Your task to perform on an android device: Open network settings Image 0: 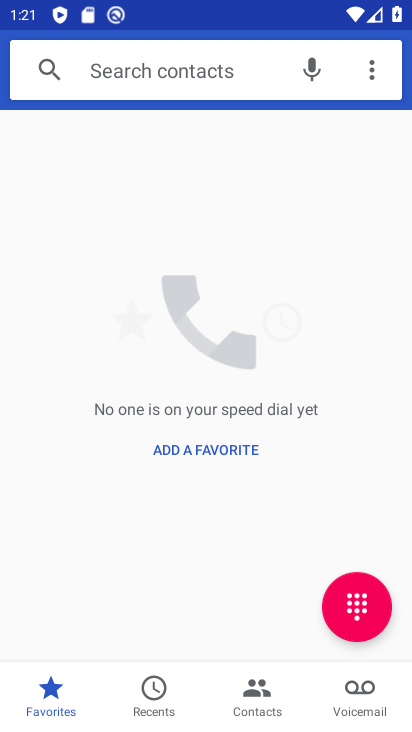
Step 0: press home button
Your task to perform on an android device: Open network settings Image 1: 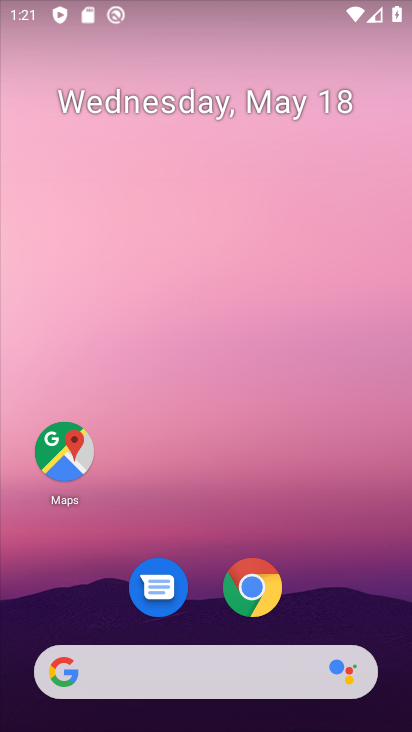
Step 1: drag from (365, 516) to (349, 227)
Your task to perform on an android device: Open network settings Image 2: 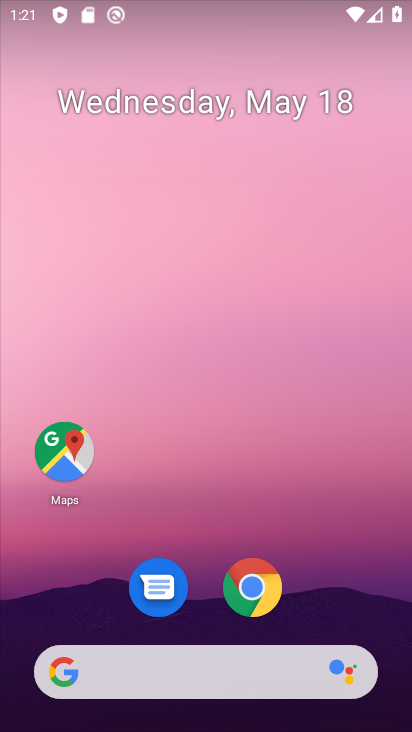
Step 2: drag from (393, 600) to (390, 299)
Your task to perform on an android device: Open network settings Image 3: 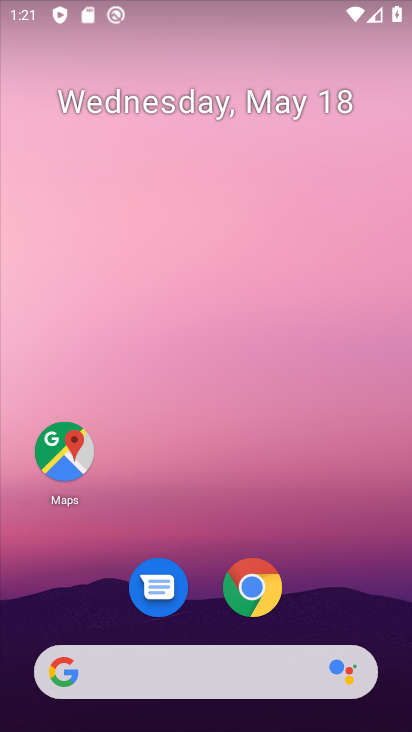
Step 3: drag from (396, 681) to (405, 300)
Your task to perform on an android device: Open network settings Image 4: 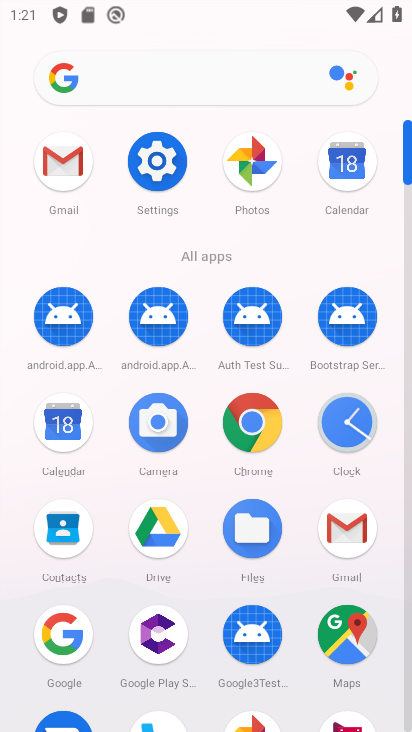
Step 4: click (164, 162)
Your task to perform on an android device: Open network settings Image 5: 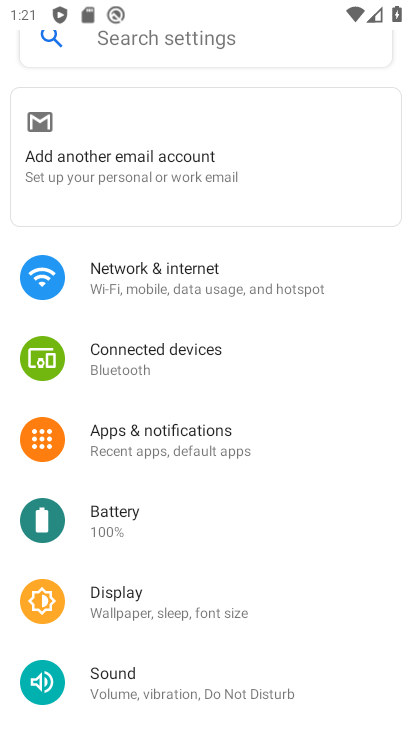
Step 5: click (134, 282)
Your task to perform on an android device: Open network settings Image 6: 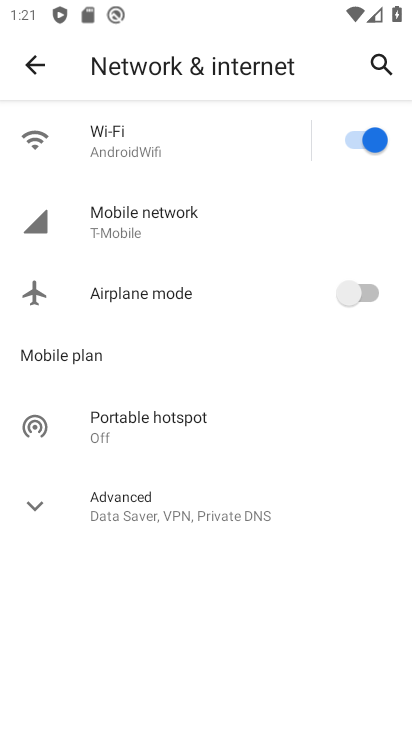
Step 6: click (139, 140)
Your task to perform on an android device: Open network settings Image 7: 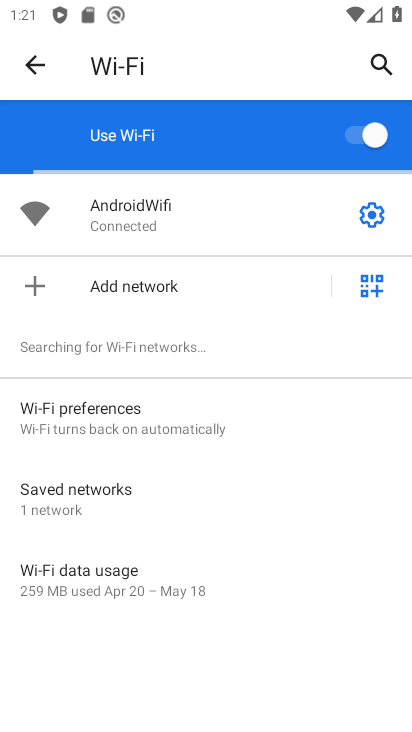
Step 7: click (29, 65)
Your task to perform on an android device: Open network settings Image 8: 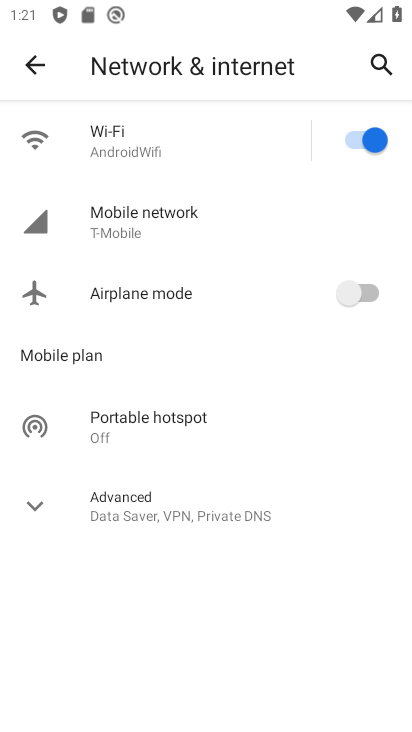
Step 8: click (121, 238)
Your task to perform on an android device: Open network settings Image 9: 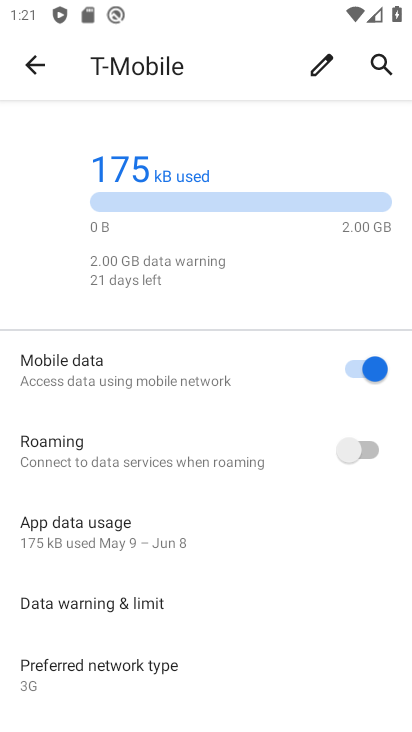
Step 9: task complete